Your task to perform on an android device: turn on translation in the chrome app Image 0: 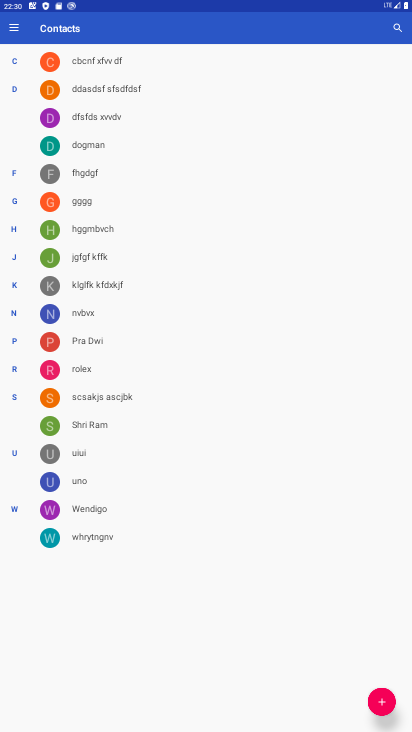
Step 0: press home button
Your task to perform on an android device: turn on translation in the chrome app Image 1: 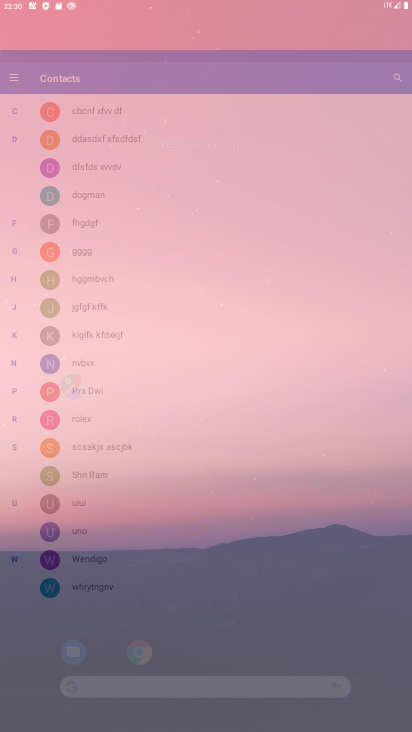
Step 1: click (243, 145)
Your task to perform on an android device: turn on translation in the chrome app Image 2: 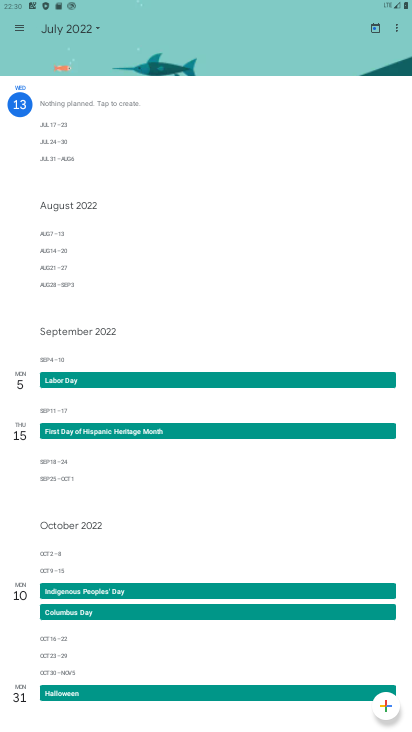
Step 2: press home button
Your task to perform on an android device: turn on translation in the chrome app Image 3: 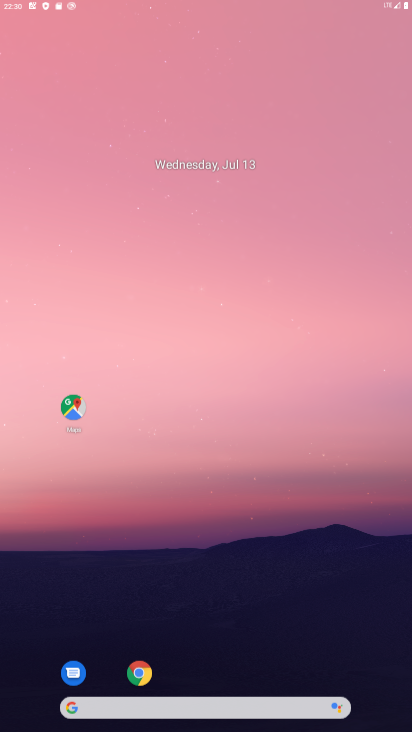
Step 3: drag from (167, 632) to (203, 124)
Your task to perform on an android device: turn on translation in the chrome app Image 4: 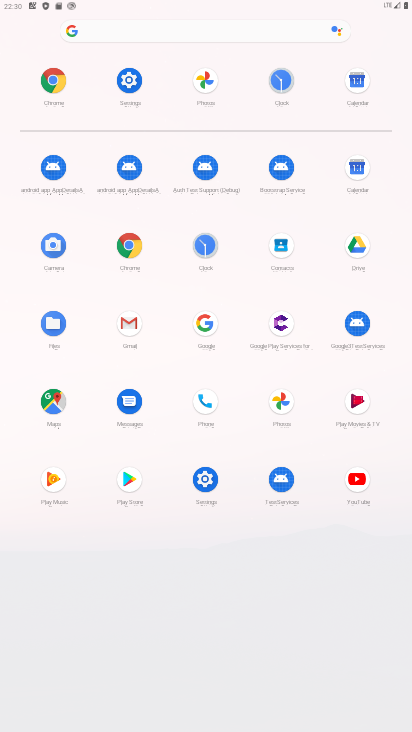
Step 4: click (130, 242)
Your task to perform on an android device: turn on translation in the chrome app Image 5: 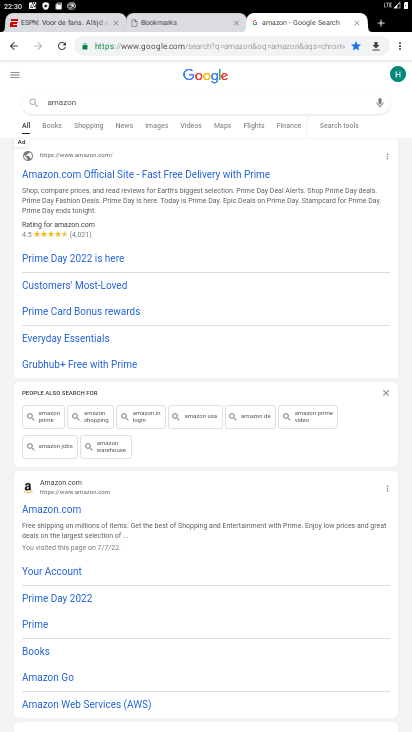
Step 5: drag from (397, 42) to (318, 283)
Your task to perform on an android device: turn on translation in the chrome app Image 6: 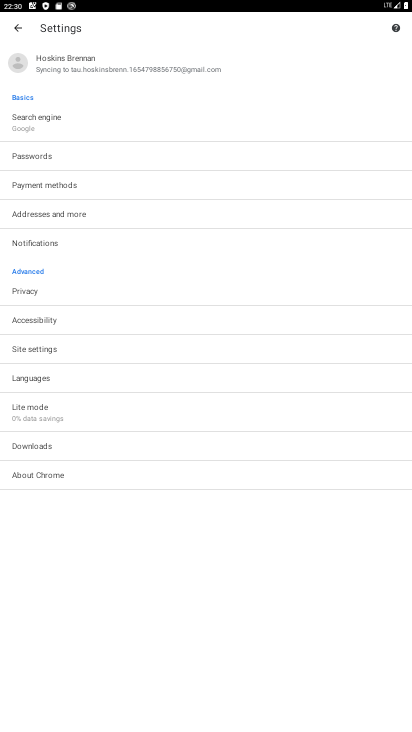
Step 6: click (57, 380)
Your task to perform on an android device: turn on translation in the chrome app Image 7: 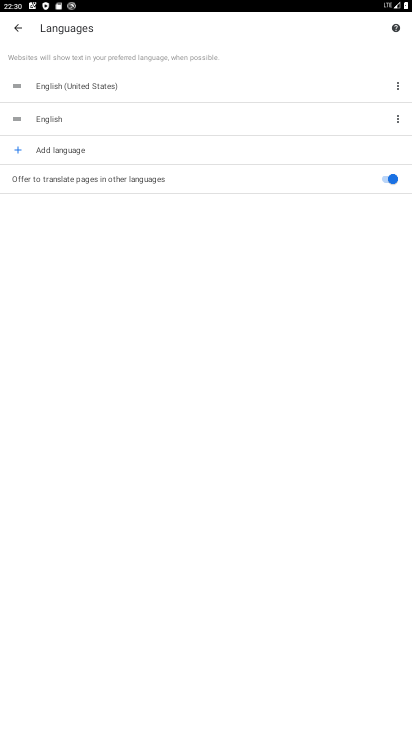
Step 7: task complete